Your task to perform on an android device: Show me popular videos on Youtube Image 0: 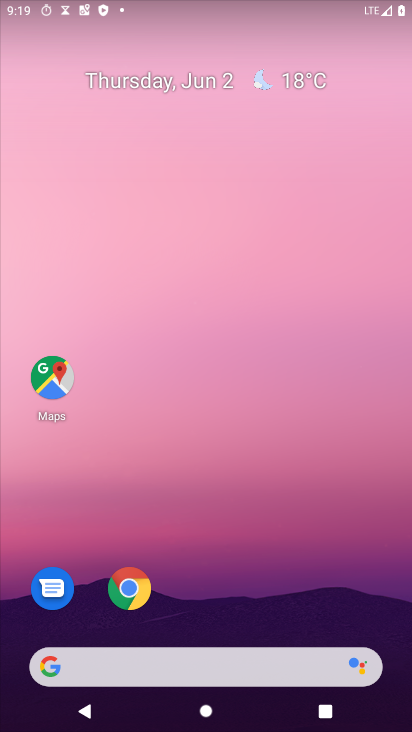
Step 0: drag from (222, 572) to (249, 16)
Your task to perform on an android device: Show me popular videos on Youtube Image 1: 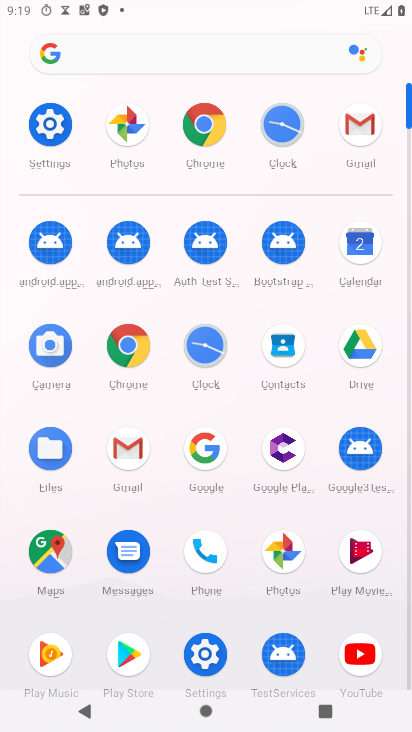
Step 1: click (363, 658)
Your task to perform on an android device: Show me popular videos on Youtube Image 2: 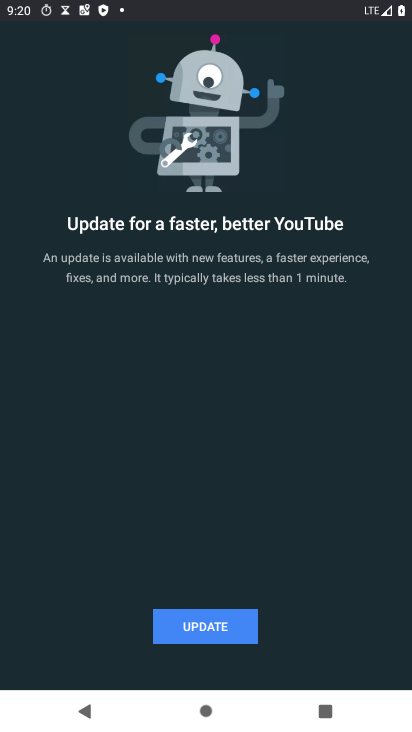
Step 2: click (222, 621)
Your task to perform on an android device: Show me popular videos on Youtube Image 3: 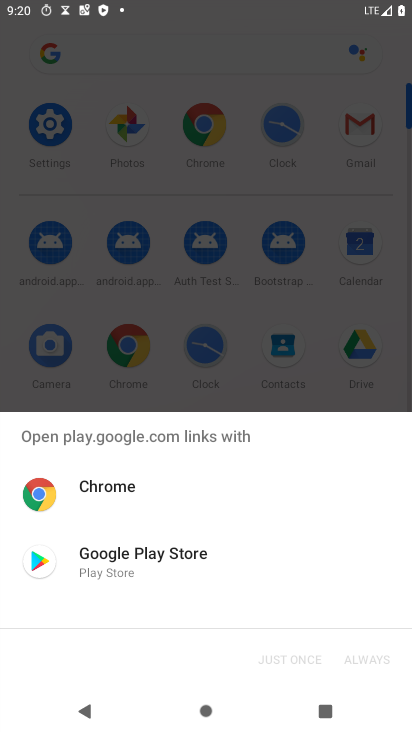
Step 3: click (139, 549)
Your task to perform on an android device: Show me popular videos on Youtube Image 4: 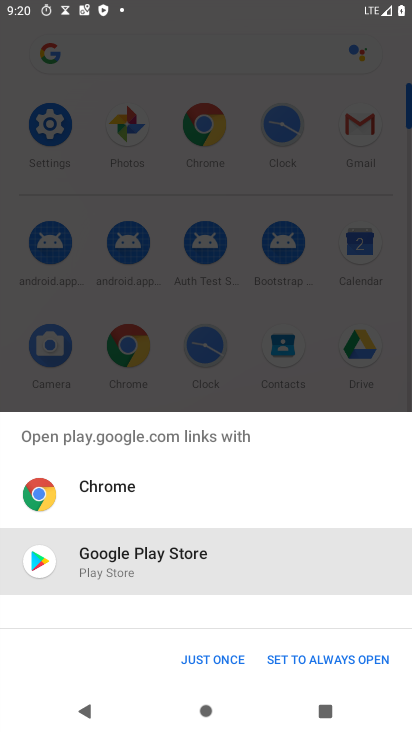
Step 4: click (217, 665)
Your task to perform on an android device: Show me popular videos on Youtube Image 5: 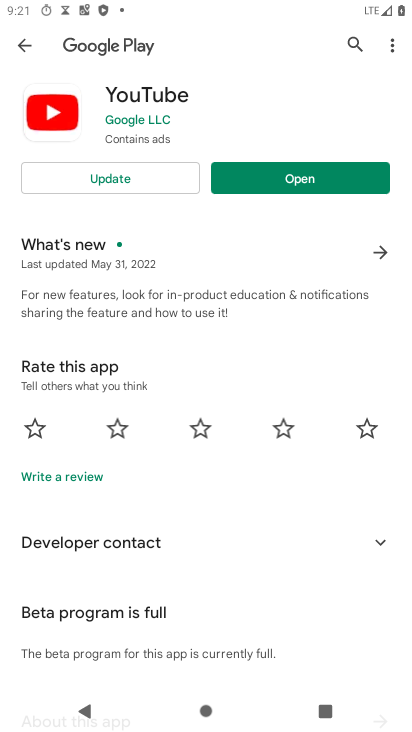
Step 5: click (131, 176)
Your task to perform on an android device: Show me popular videos on Youtube Image 6: 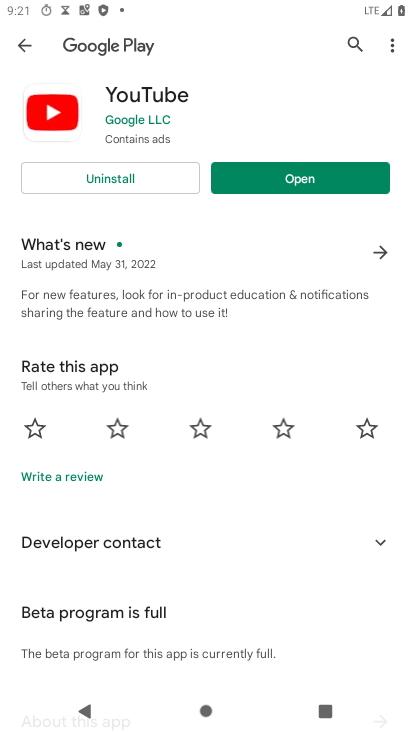
Step 6: click (294, 182)
Your task to perform on an android device: Show me popular videos on Youtube Image 7: 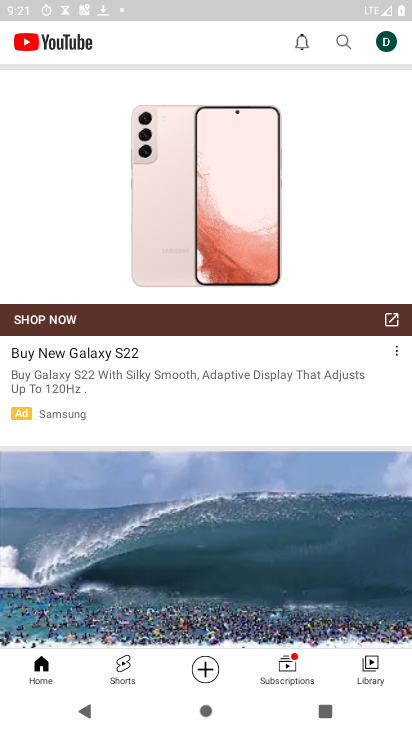
Step 7: drag from (156, 477) to (209, 447)
Your task to perform on an android device: Show me popular videos on Youtube Image 8: 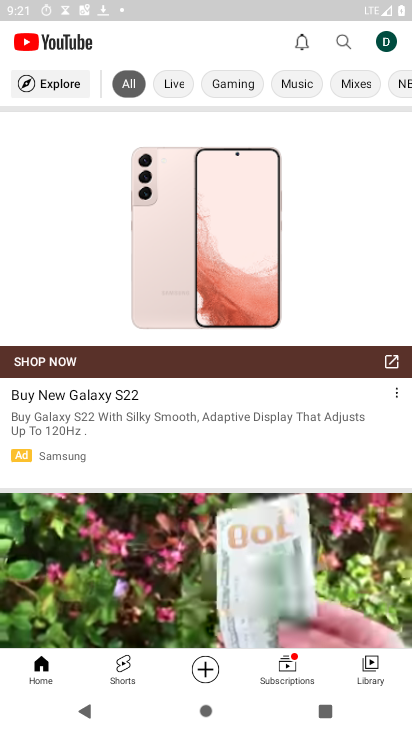
Step 8: click (35, 83)
Your task to perform on an android device: Show me popular videos on Youtube Image 9: 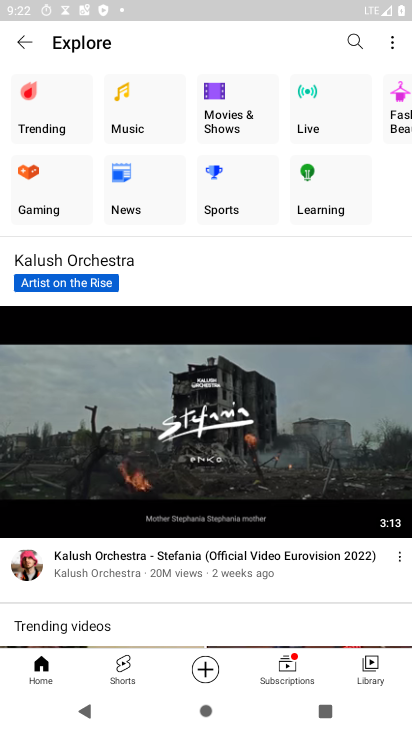
Step 9: click (204, 428)
Your task to perform on an android device: Show me popular videos on Youtube Image 10: 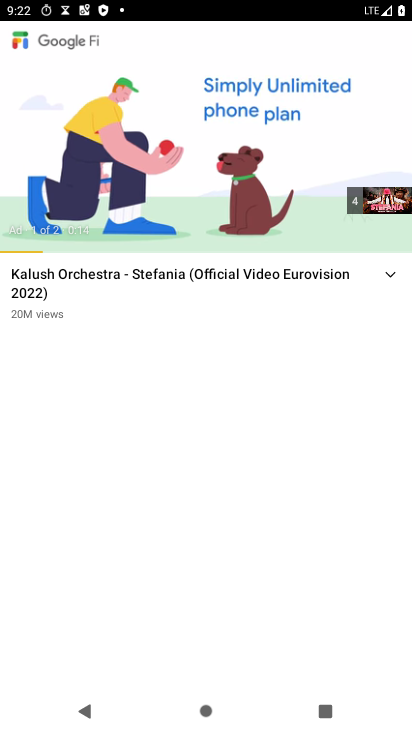
Step 10: click (189, 136)
Your task to perform on an android device: Show me popular videos on Youtube Image 11: 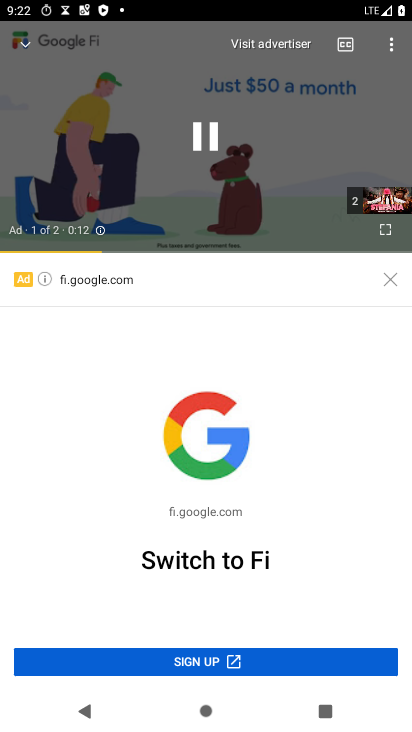
Step 11: click (201, 134)
Your task to perform on an android device: Show me popular videos on Youtube Image 12: 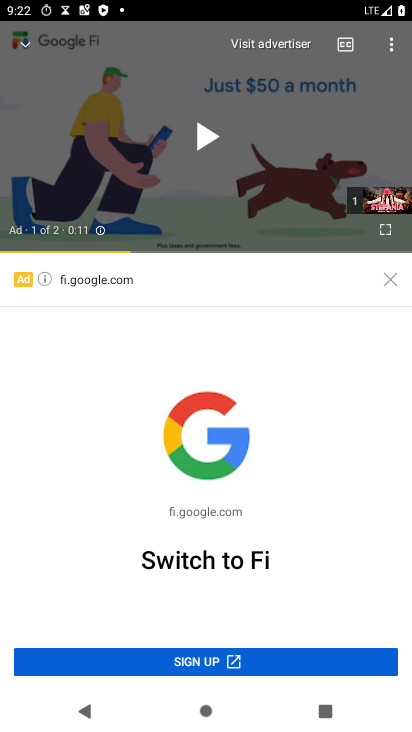
Step 12: task complete